Your task to perform on an android device: delete a single message in the gmail app Image 0: 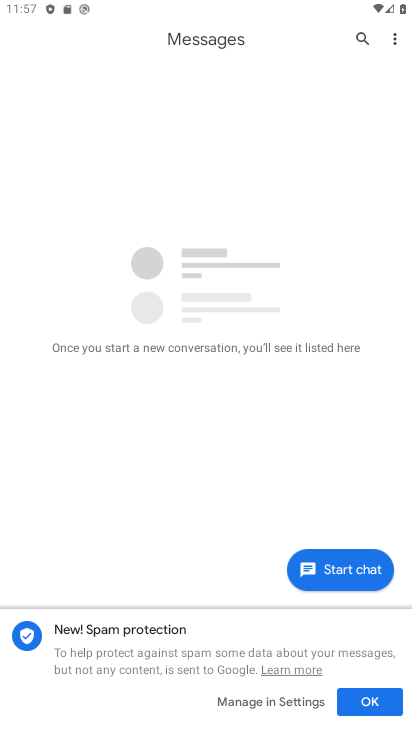
Step 0: press home button
Your task to perform on an android device: delete a single message in the gmail app Image 1: 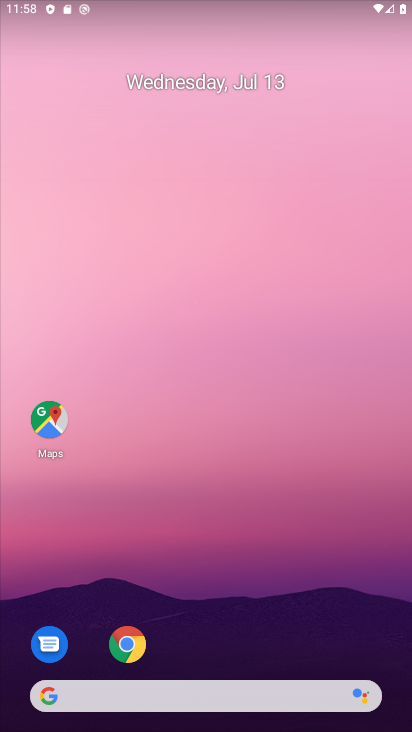
Step 1: drag from (222, 660) to (123, 124)
Your task to perform on an android device: delete a single message in the gmail app Image 2: 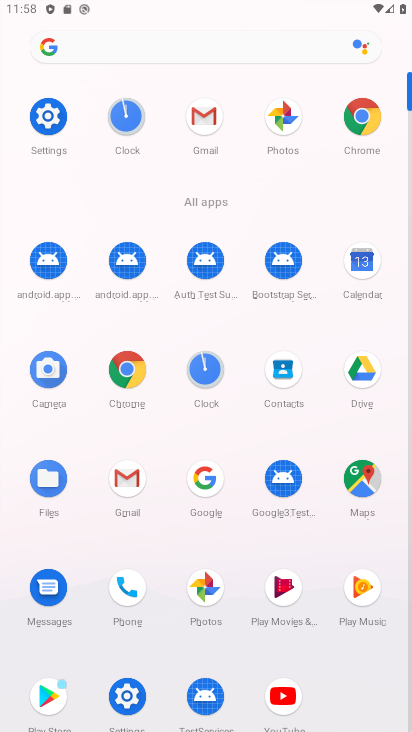
Step 2: click (189, 117)
Your task to perform on an android device: delete a single message in the gmail app Image 3: 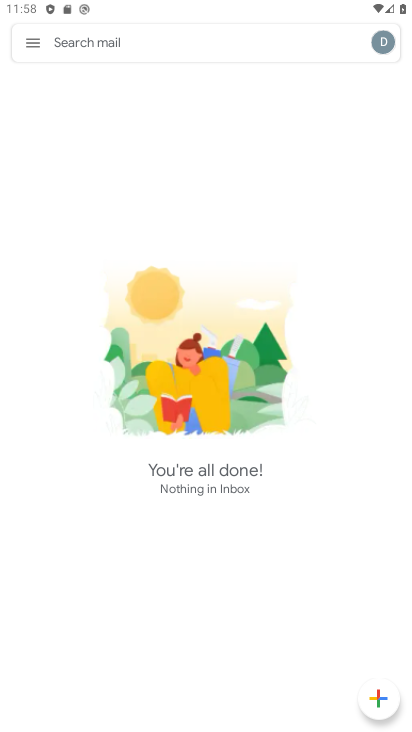
Step 3: task complete